Your task to perform on an android device: move a message to another label in the gmail app Image 0: 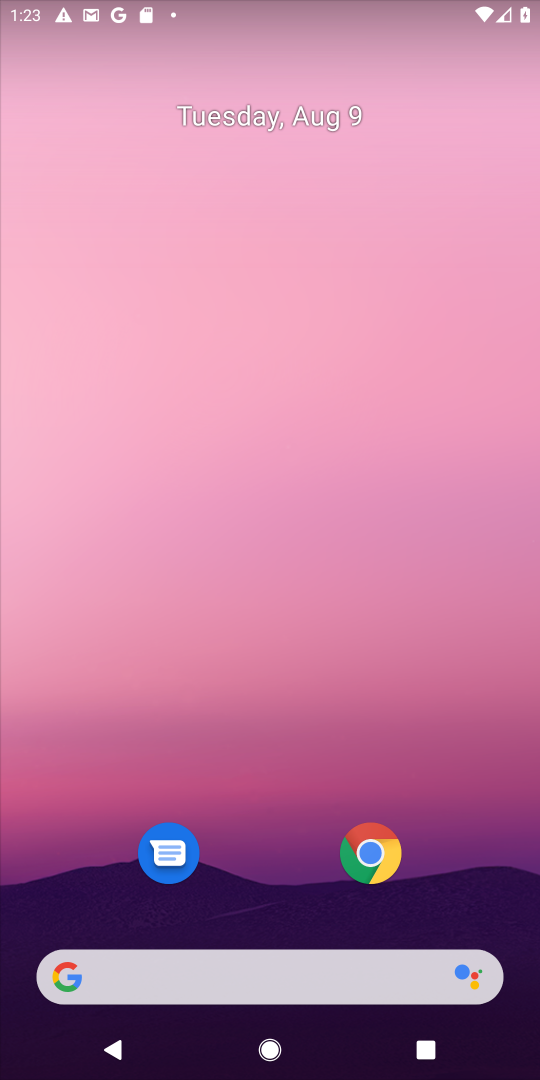
Step 0: drag from (287, 879) to (411, 0)
Your task to perform on an android device: move a message to another label in the gmail app Image 1: 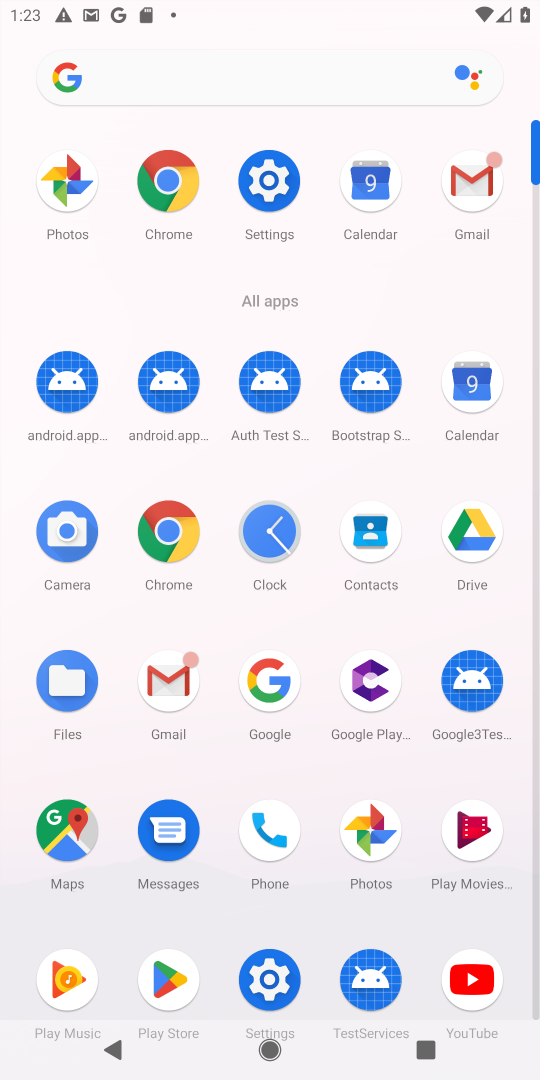
Step 1: click (461, 157)
Your task to perform on an android device: move a message to another label in the gmail app Image 2: 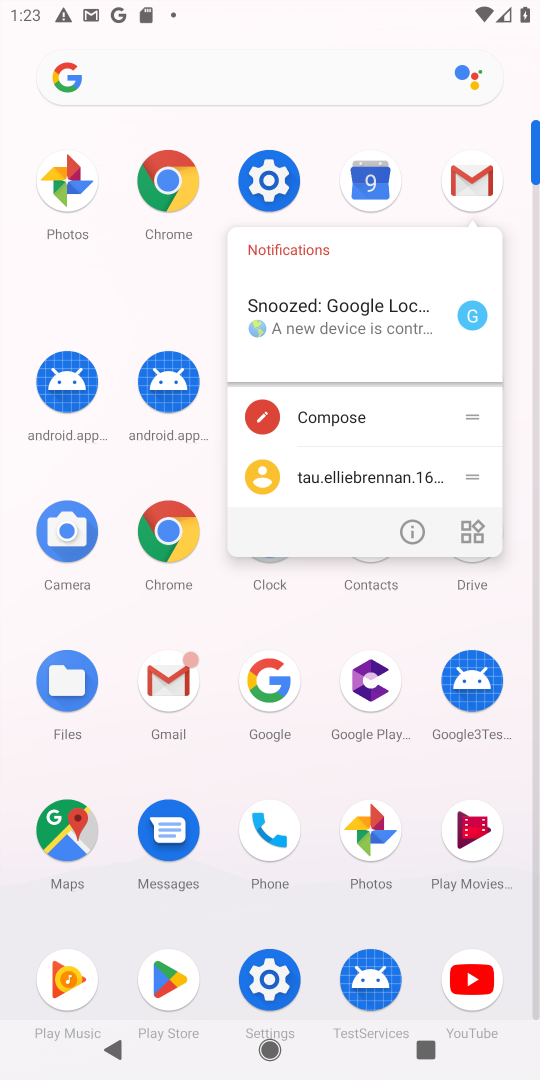
Step 2: click (478, 171)
Your task to perform on an android device: move a message to another label in the gmail app Image 3: 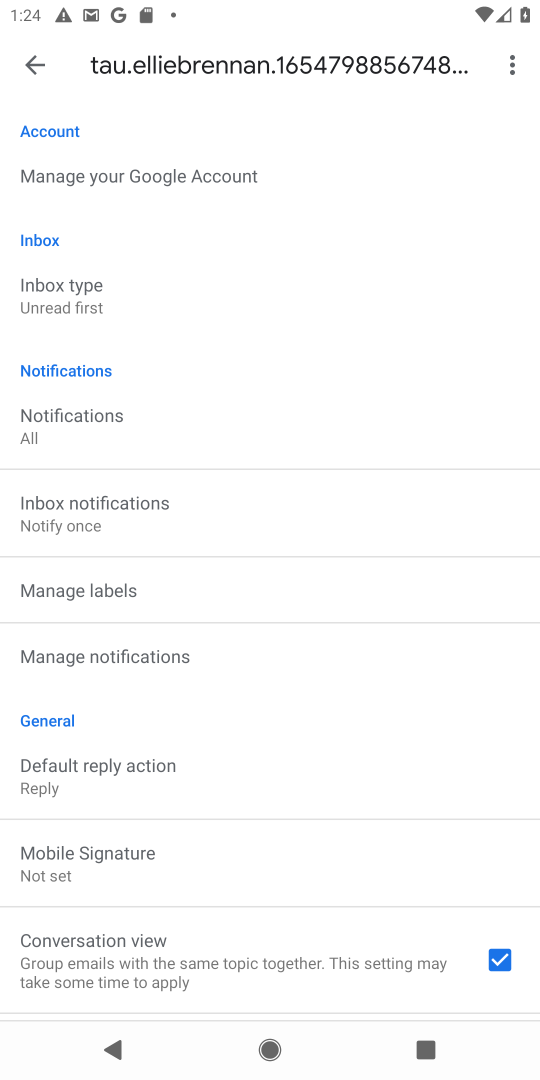
Step 3: click (20, 64)
Your task to perform on an android device: move a message to another label in the gmail app Image 4: 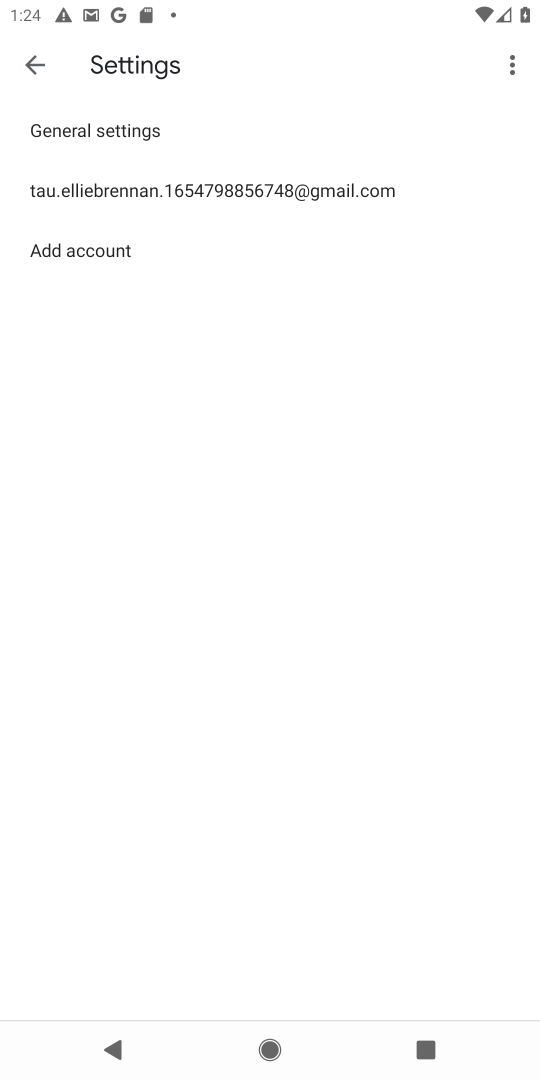
Step 4: click (33, 54)
Your task to perform on an android device: move a message to another label in the gmail app Image 5: 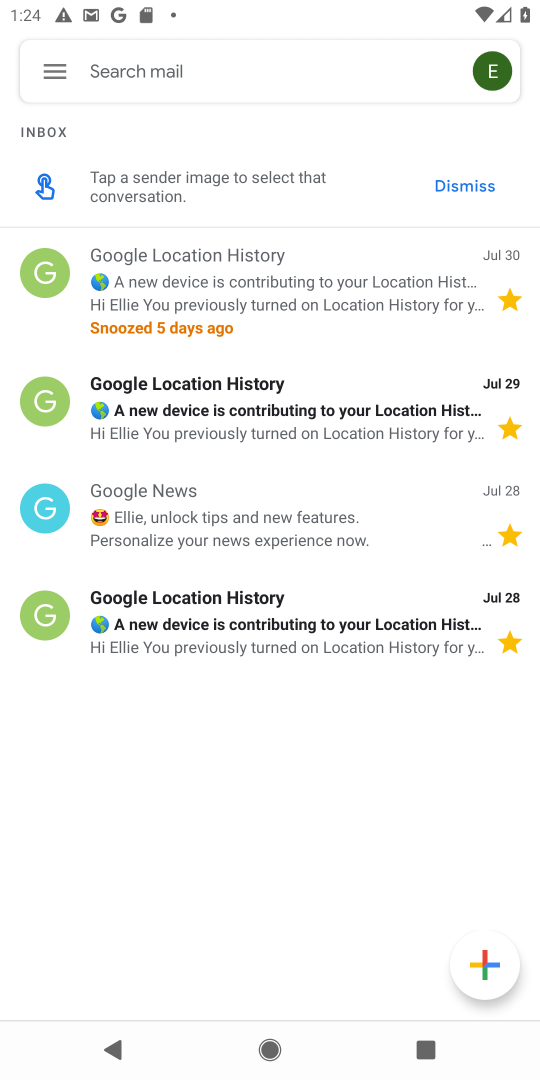
Step 5: click (35, 261)
Your task to perform on an android device: move a message to another label in the gmail app Image 6: 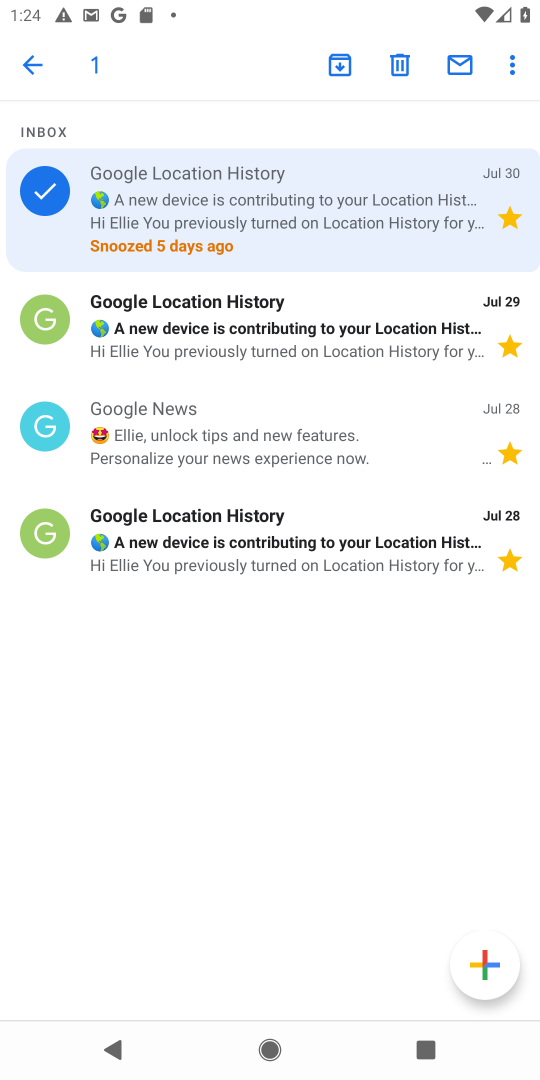
Step 6: click (518, 58)
Your task to perform on an android device: move a message to another label in the gmail app Image 7: 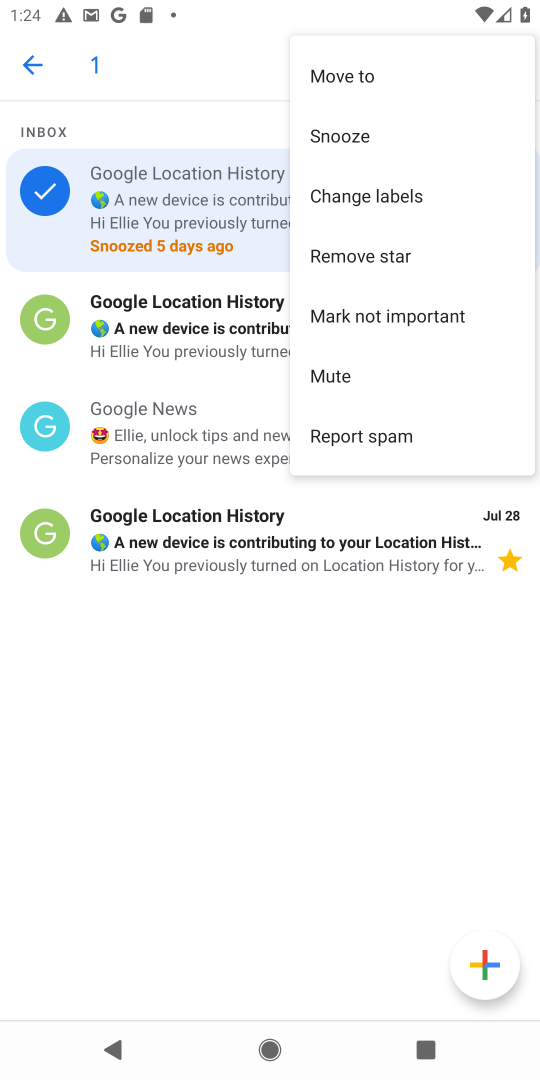
Step 7: click (352, 76)
Your task to perform on an android device: move a message to another label in the gmail app Image 8: 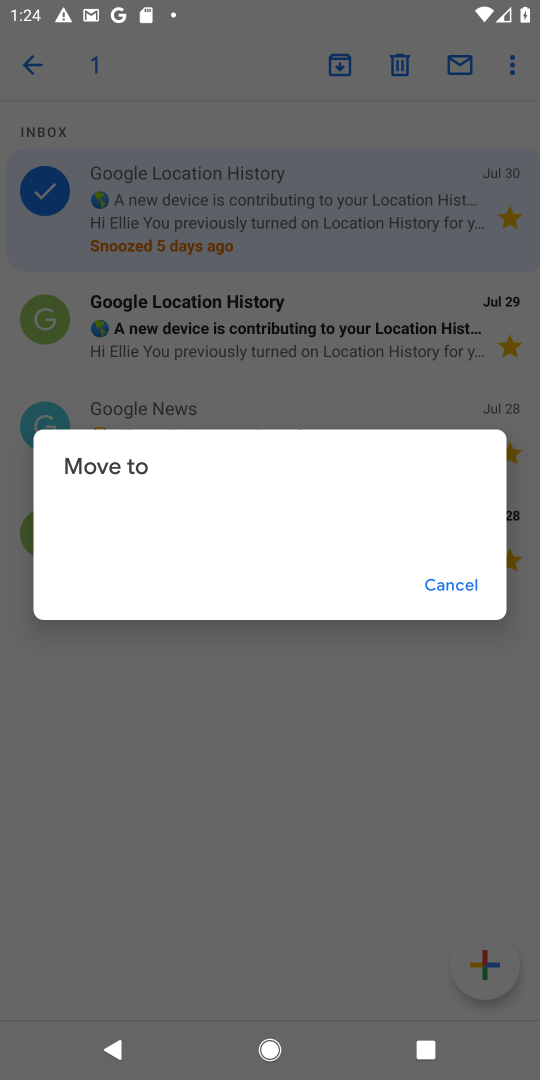
Step 8: click (454, 578)
Your task to perform on an android device: move a message to another label in the gmail app Image 9: 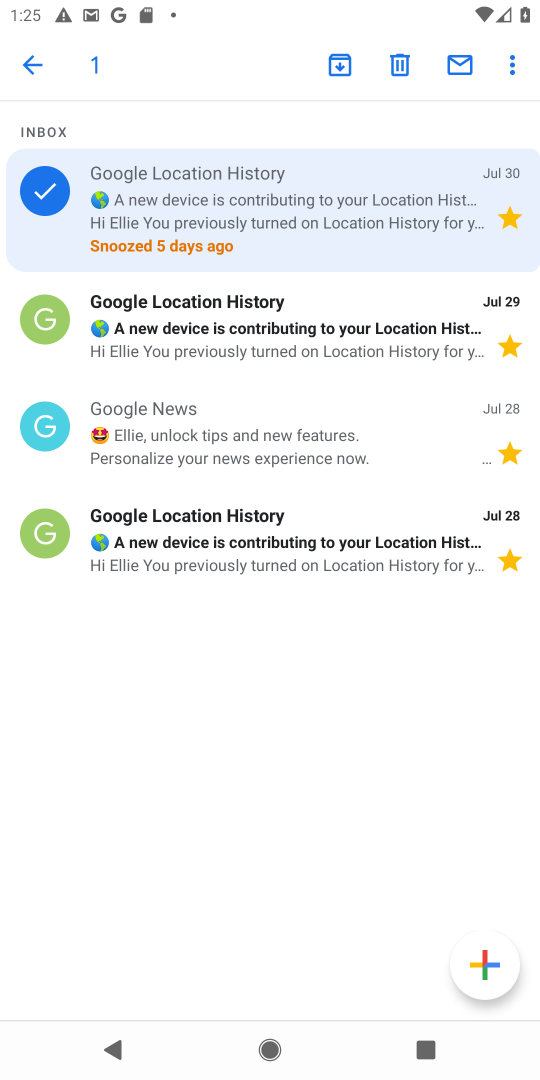
Step 9: task complete